Your task to perform on an android device: Open Android settings Image 0: 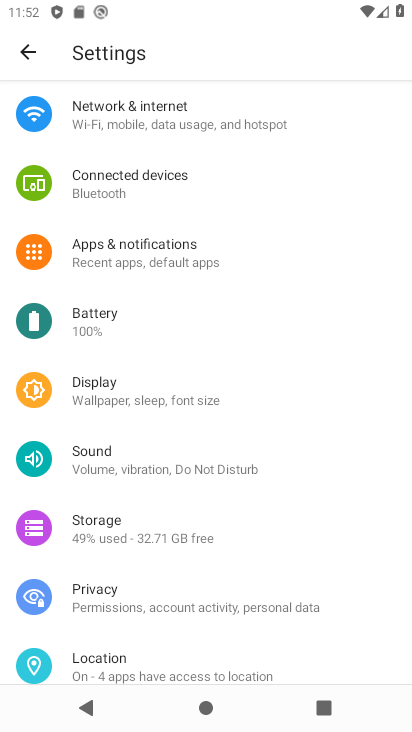
Step 0: task complete